Your task to perform on an android device: check storage Image 0: 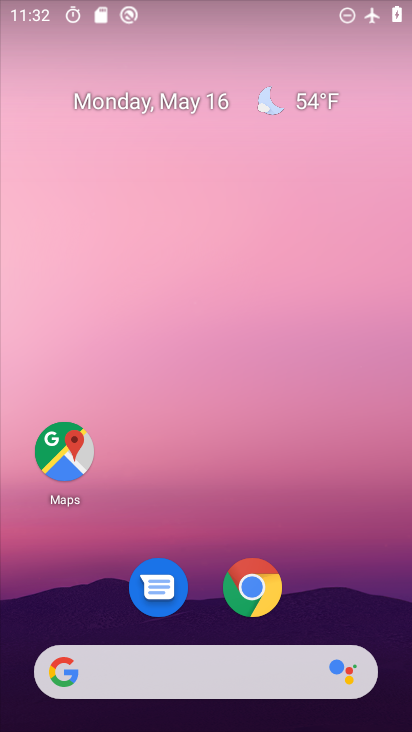
Step 0: click (280, 57)
Your task to perform on an android device: check storage Image 1: 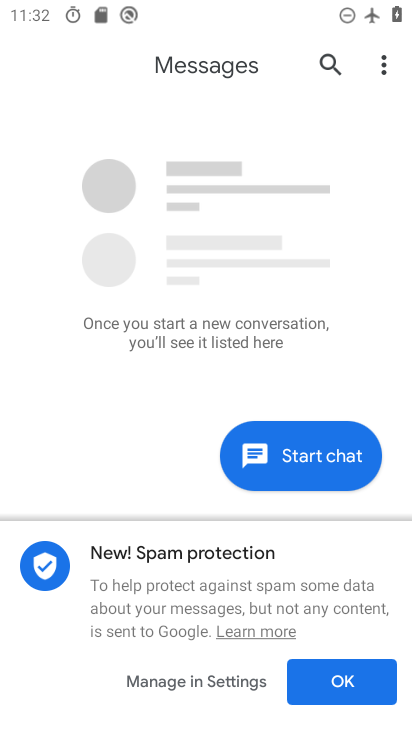
Step 1: press home button
Your task to perform on an android device: check storage Image 2: 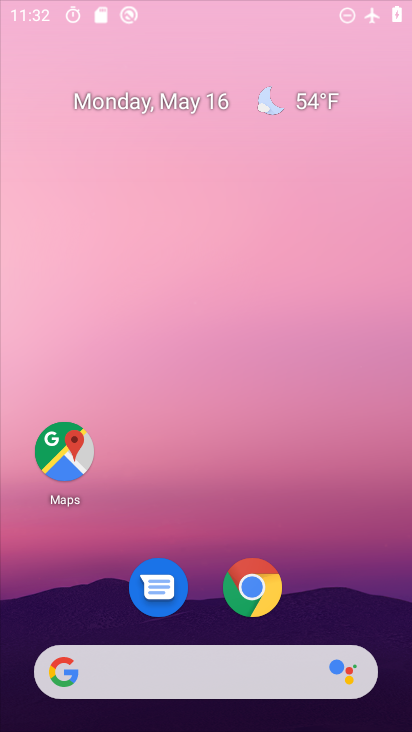
Step 2: drag from (226, 632) to (282, 241)
Your task to perform on an android device: check storage Image 3: 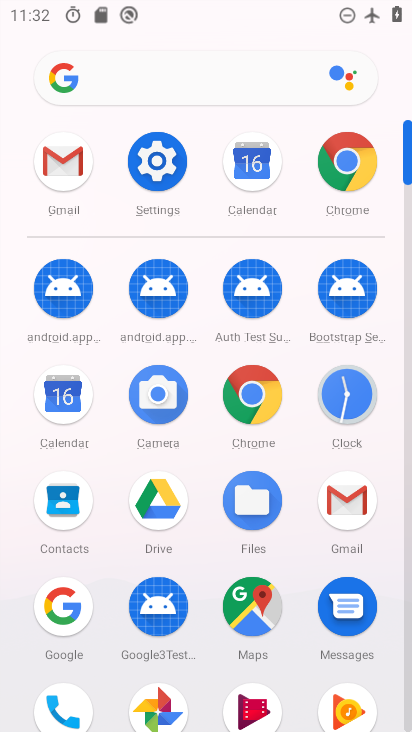
Step 3: click (160, 169)
Your task to perform on an android device: check storage Image 4: 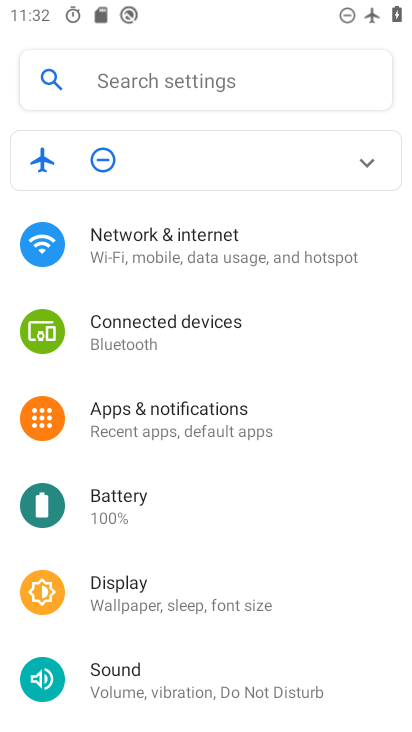
Step 4: drag from (147, 561) to (317, 5)
Your task to perform on an android device: check storage Image 5: 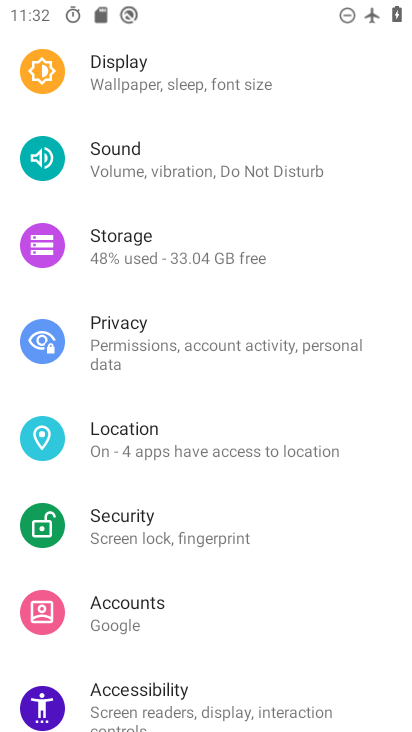
Step 5: click (163, 239)
Your task to perform on an android device: check storage Image 6: 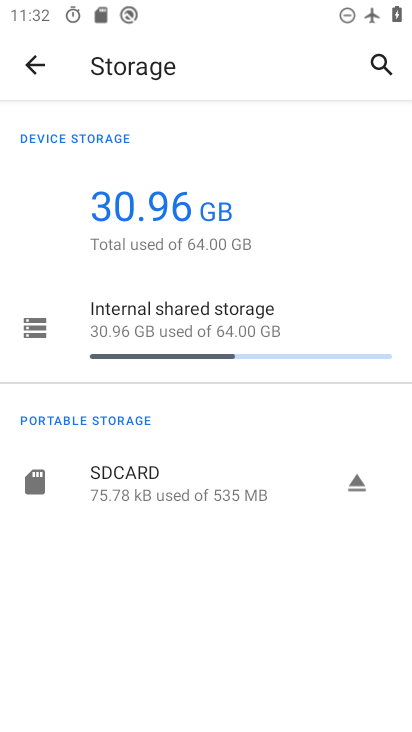
Step 6: drag from (231, 523) to (289, 123)
Your task to perform on an android device: check storage Image 7: 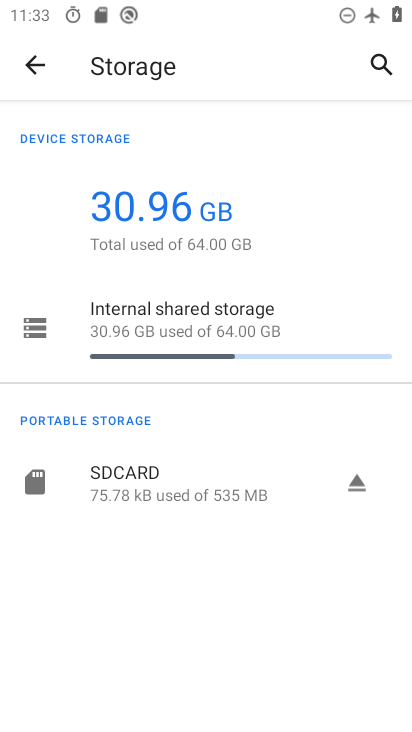
Step 7: drag from (215, 218) to (279, 516)
Your task to perform on an android device: check storage Image 8: 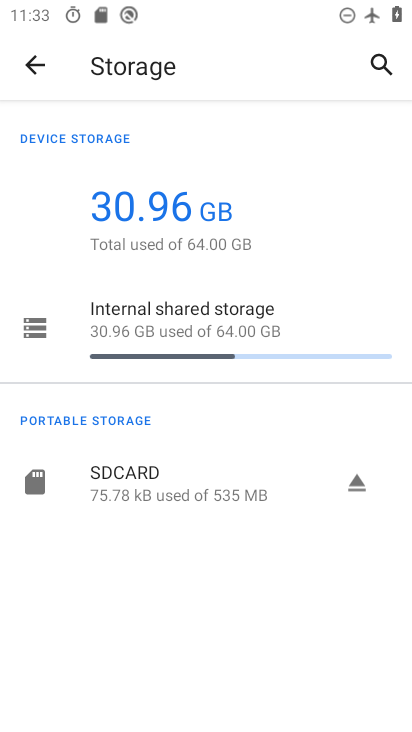
Step 8: click (212, 205)
Your task to perform on an android device: check storage Image 9: 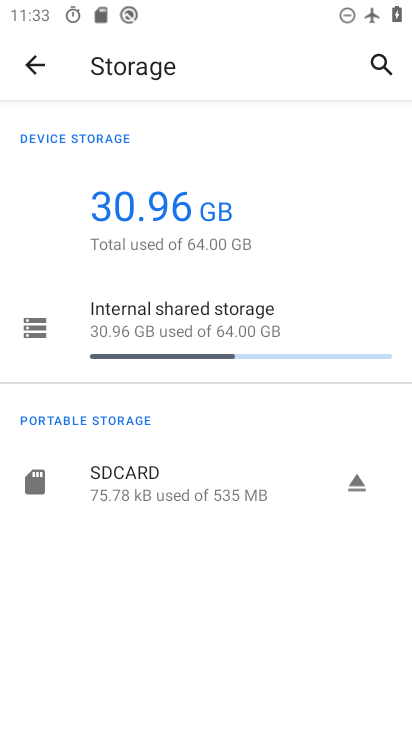
Step 9: click (212, 205)
Your task to perform on an android device: check storage Image 10: 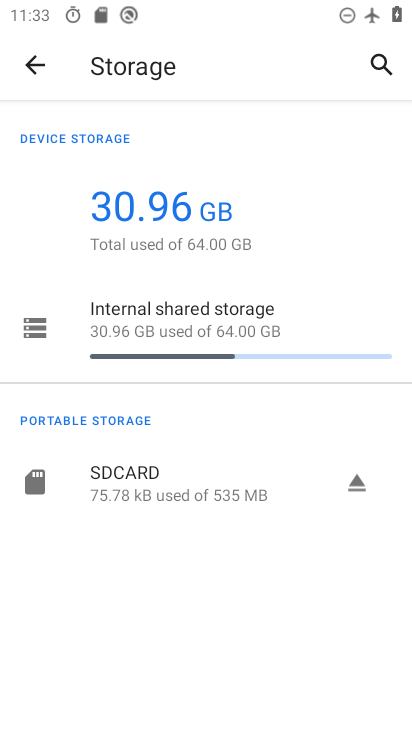
Step 10: task complete